Your task to perform on an android device: Go to Google Image 0: 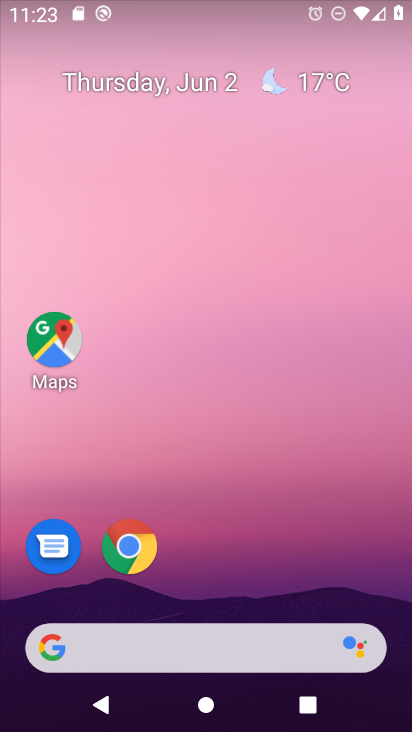
Step 0: click (190, 32)
Your task to perform on an android device: Go to Google Image 1: 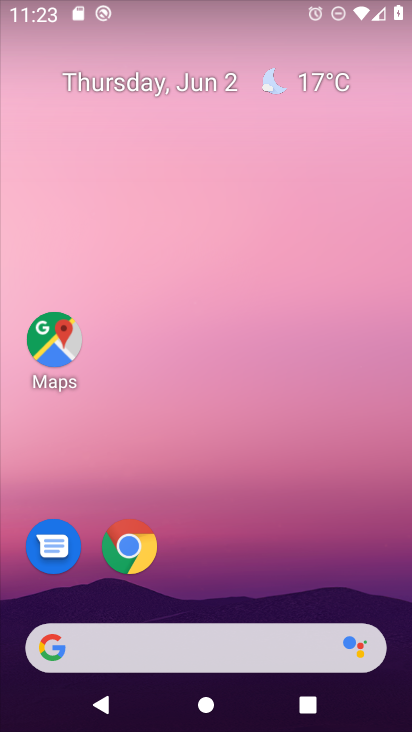
Step 1: drag from (229, 560) to (205, 41)
Your task to perform on an android device: Go to Google Image 2: 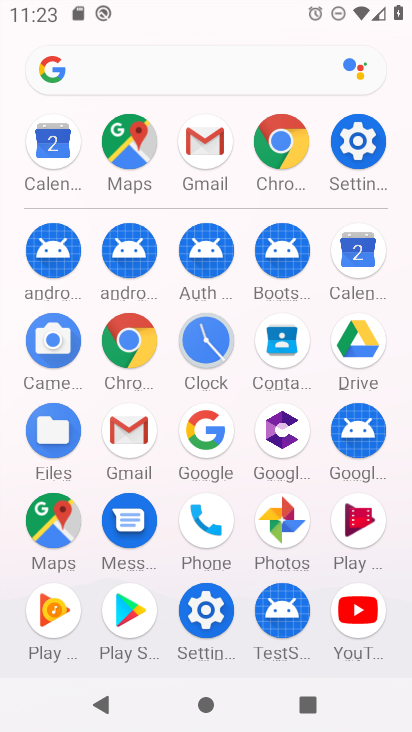
Step 2: click (280, 139)
Your task to perform on an android device: Go to Google Image 3: 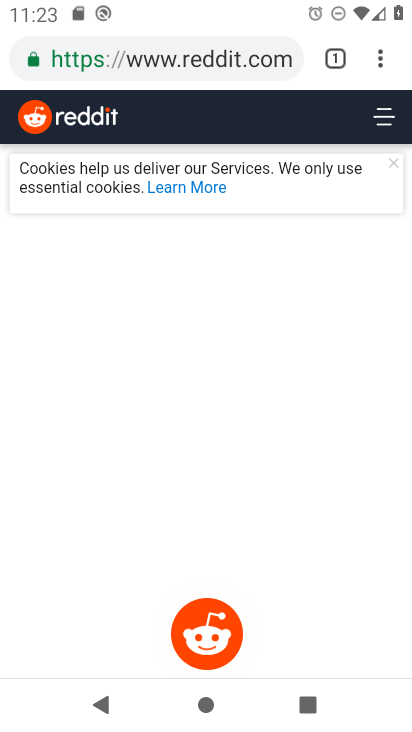
Step 3: click (193, 32)
Your task to perform on an android device: Go to Google Image 4: 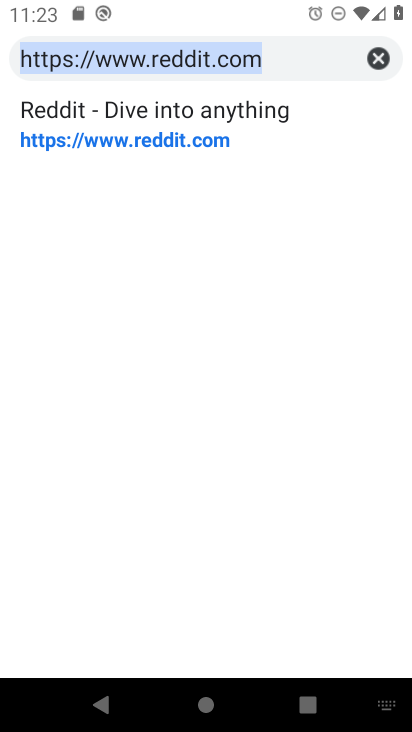
Step 4: click (379, 56)
Your task to perform on an android device: Go to Google Image 5: 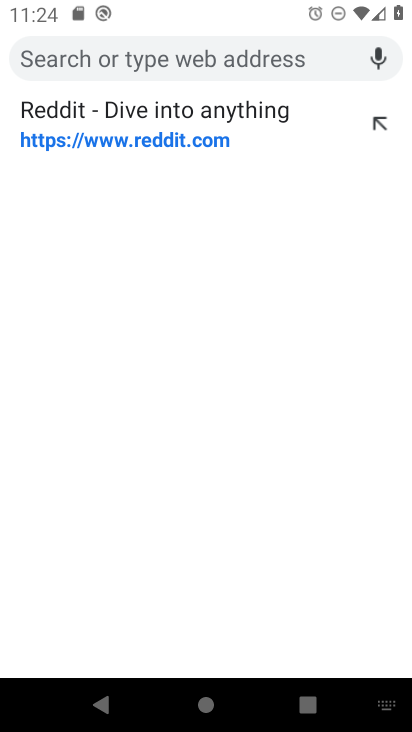
Step 5: type "Google"
Your task to perform on an android device: Go to Google Image 6: 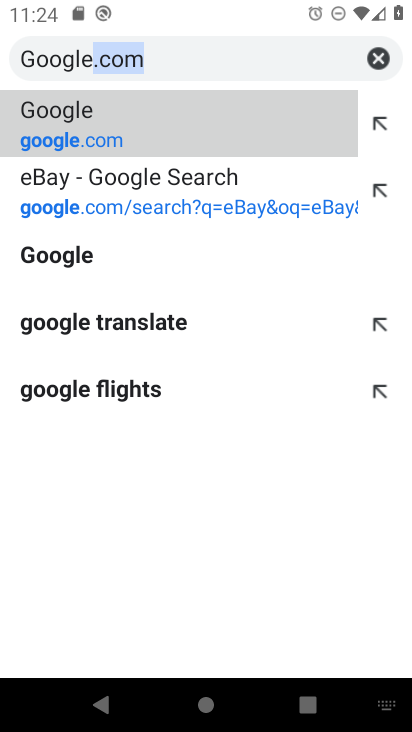
Step 6: type ""
Your task to perform on an android device: Go to Google Image 7: 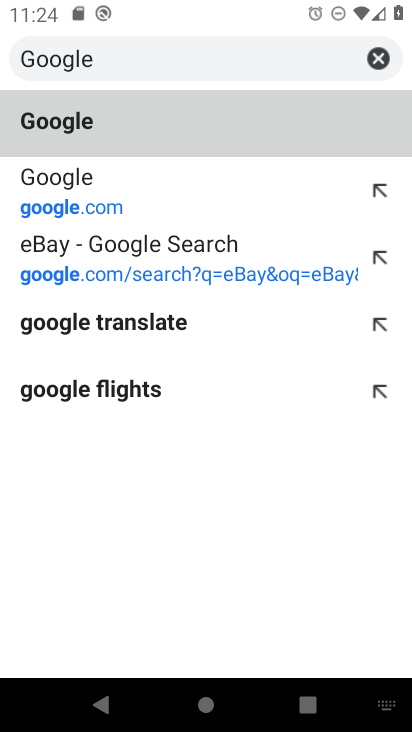
Step 7: click (101, 195)
Your task to perform on an android device: Go to Google Image 8: 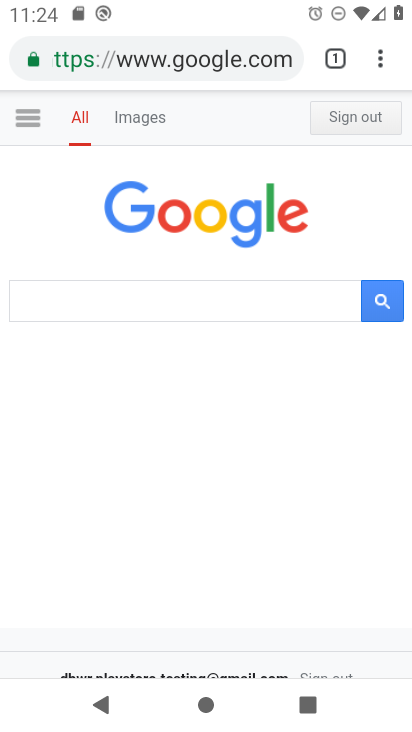
Step 8: task complete